Your task to perform on an android device: turn on translation in the chrome app Image 0: 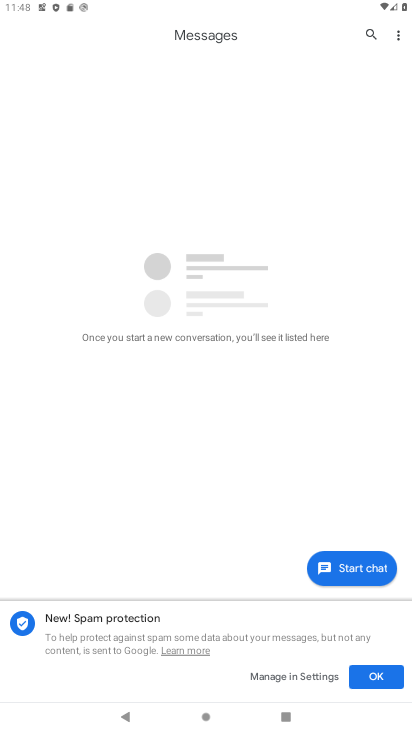
Step 0: press home button
Your task to perform on an android device: turn on translation in the chrome app Image 1: 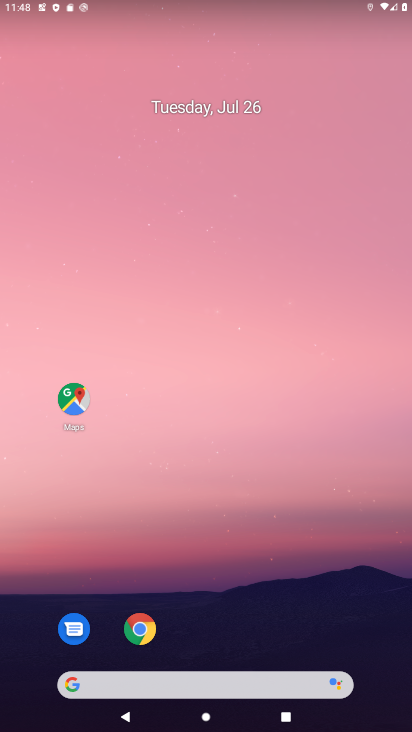
Step 1: click (138, 634)
Your task to perform on an android device: turn on translation in the chrome app Image 2: 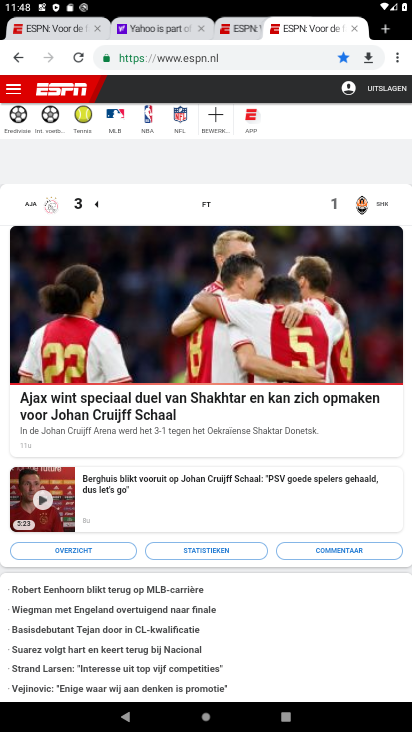
Step 2: click (399, 58)
Your task to perform on an android device: turn on translation in the chrome app Image 3: 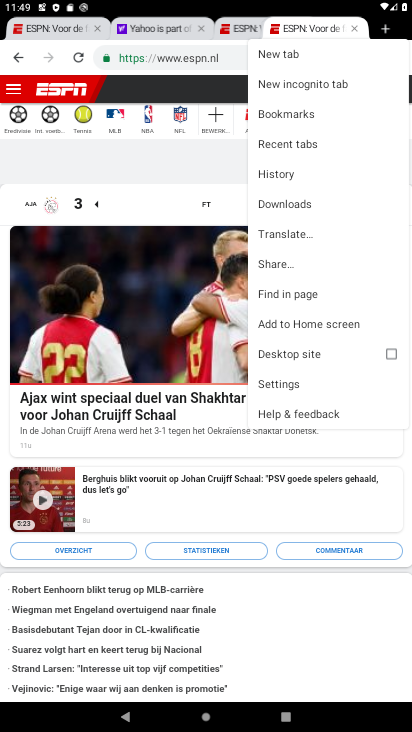
Step 3: click (280, 380)
Your task to perform on an android device: turn on translation in the chrome app Image 4: 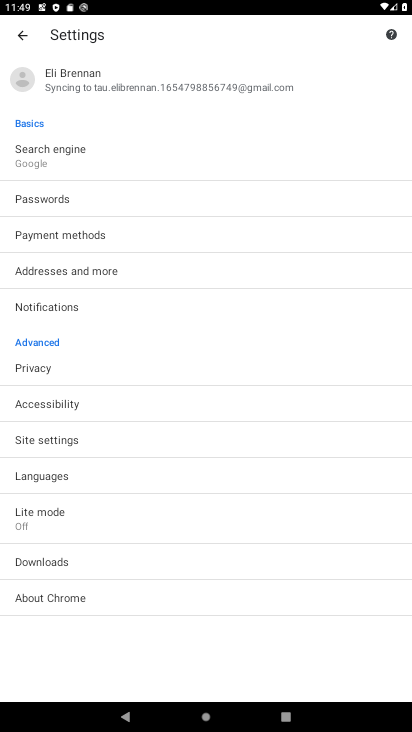
Step 4: click (43, 473)
Your task to perform on an android device: turn on translation in the chrome app Image 5: 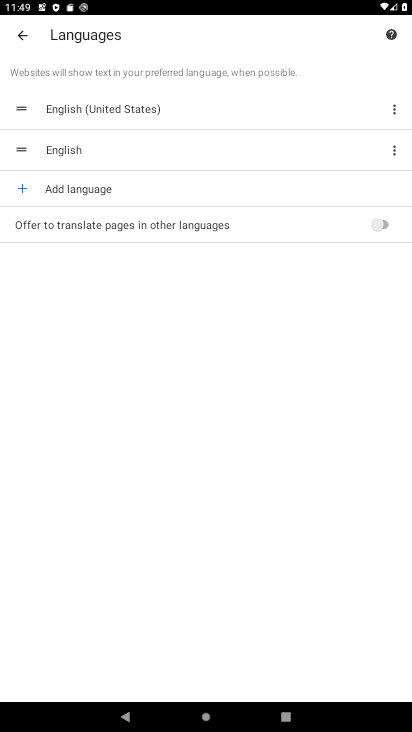
Step 5: click (391, 221)
Your task to perform on an android device: turn on translation in the chrome app Image 6: 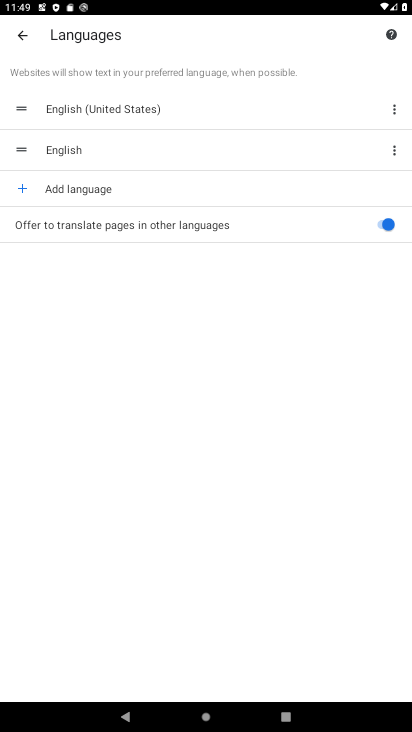
Step 6: task complete